Your task to perform on an android device: empty trash in the gmail app Image 0: 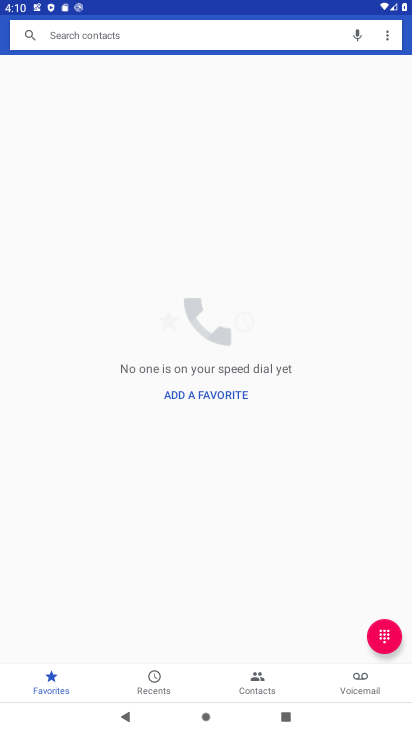
Step 0: press home button
Your task to perform on an android device: empty trash in the gmail app Image 1: 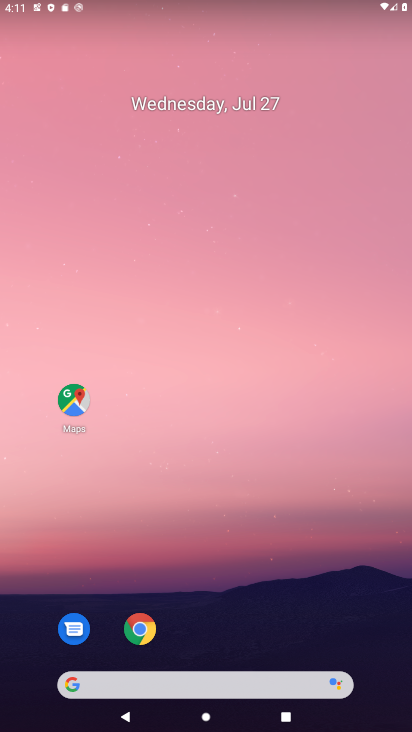
Step 1: drag from (229, 643) to (287, 19)
Your task to perform on an android device: empty trash in the gmail app Image 2: 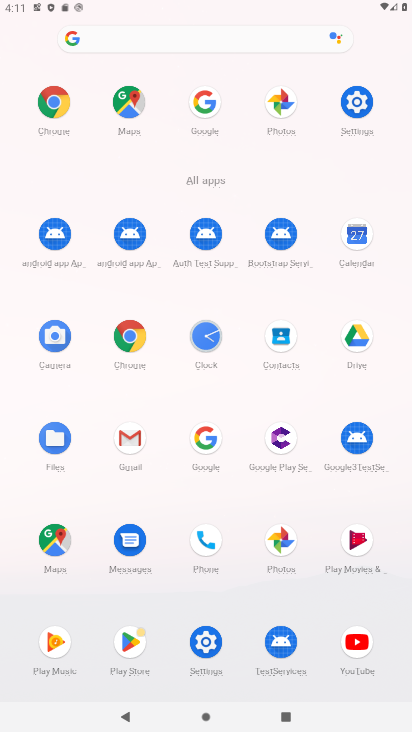
Step 2: click (123, 439)
Your task to perform on an android device: empty trash in the gmail app Image 3: 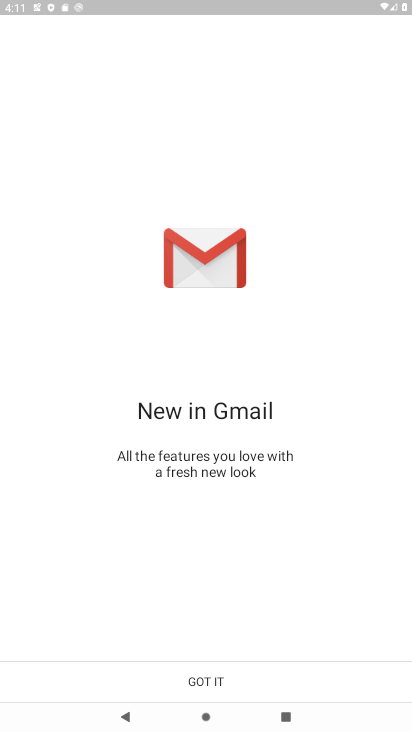
Step 3: click (187, 691)
Your task to perform on an android device: empty trash in the gmail app Image 4: 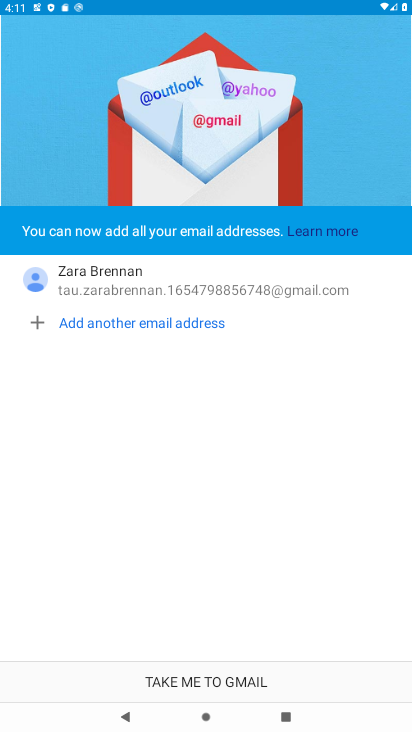
Step 4: click (215, 675)
Your task to perform on an android device: empty trash in the gmail app Image 5: 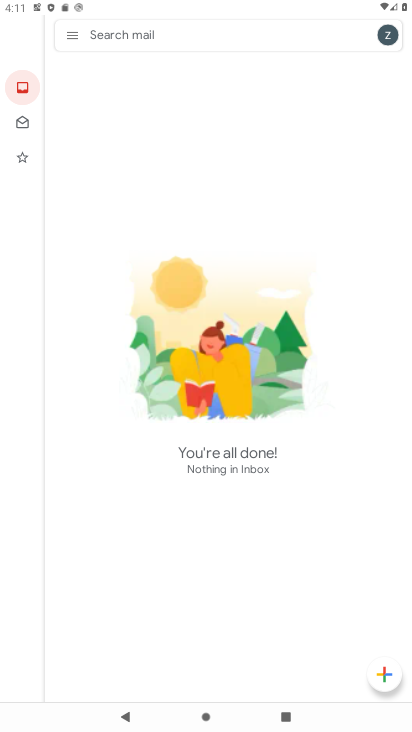
Step 5: click (70, 27)
Your task to perform on an android device: empty trash in the gmail app Image 6: 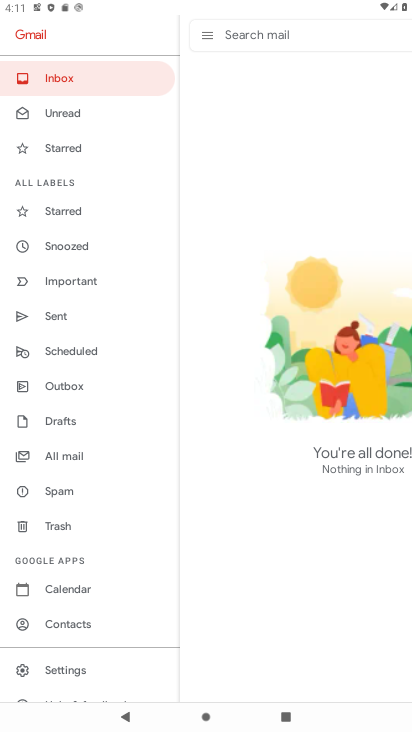
Step 6: click (42, 522)
Your task to perform on an android device: empty trash in the gmail app Image 7: 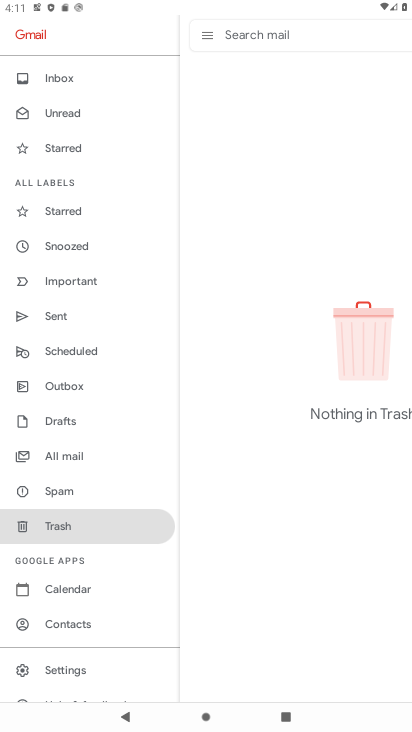
Step 7: task complete